Your task to perform on an android device: remove spam from my inbox in the gmail app Image 0: 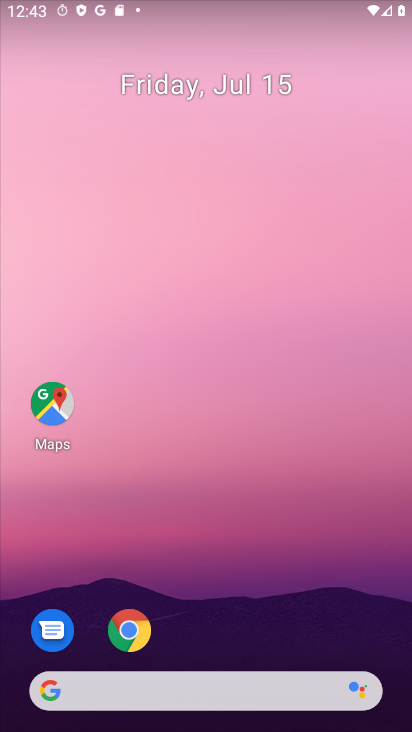
Step 0: drag from (193, 639) to (260, 19)
Your task to perform on an android device: remove spam from my inbox in the gmail app Image 1: 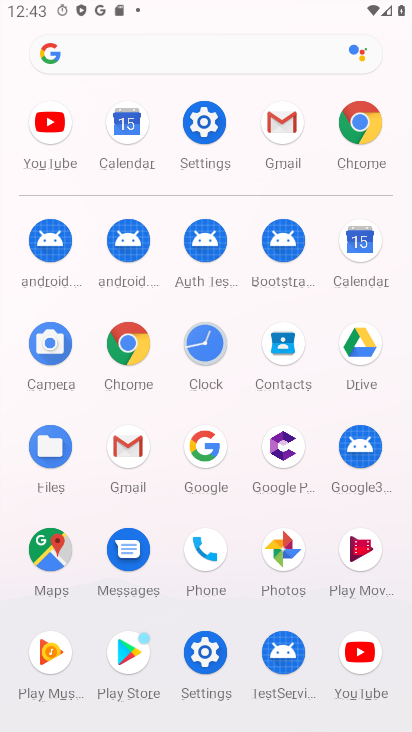
Step 1: click (117, 461)
Your task to perform on an android device: remove spam from my inbox in the gmail app Image 2: 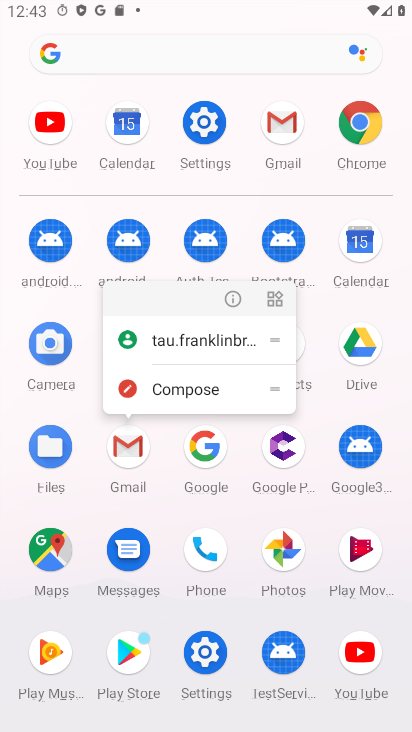
Step 2: click (236, 295)
Your task to perform on an android device: remove spam from my inbox in the gmail app Image 3: 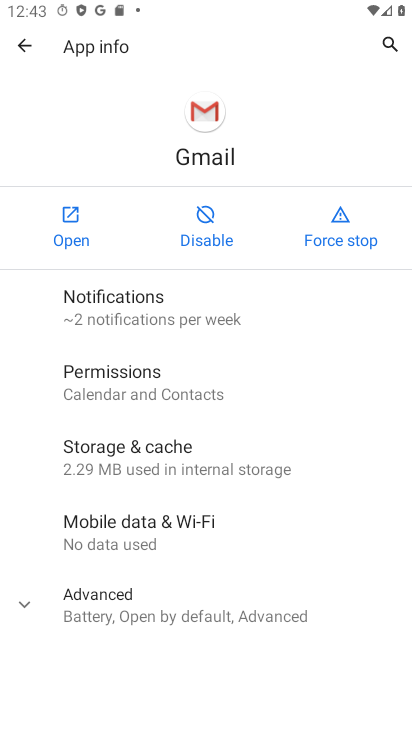
Step 3: click (84, 225)
Your task to perform on an android device: remove spam from my inbox in the gmail app Image 4: 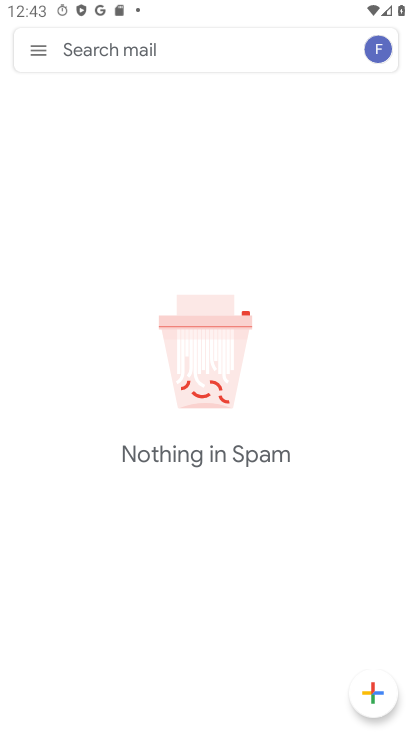
Step 4: drag from (211, 566) to (239, 344)
Your task to perform on an android device: remove spam from my inbox in the gmail app Image 5: 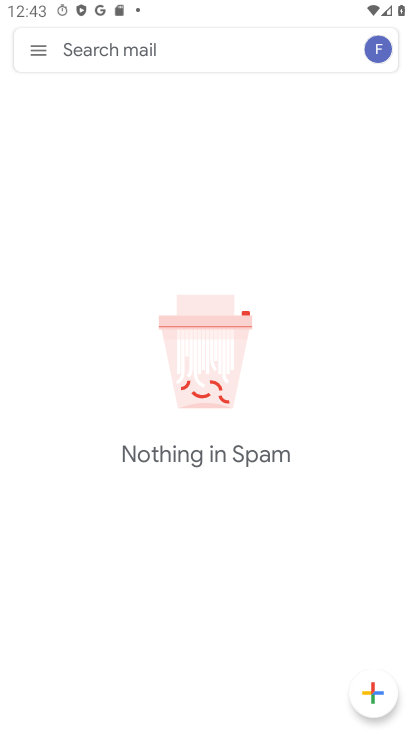
Step 5: click (41, 44)
Your task to perform on an android device: remove spam from my inbox in the gmail app Image 6: 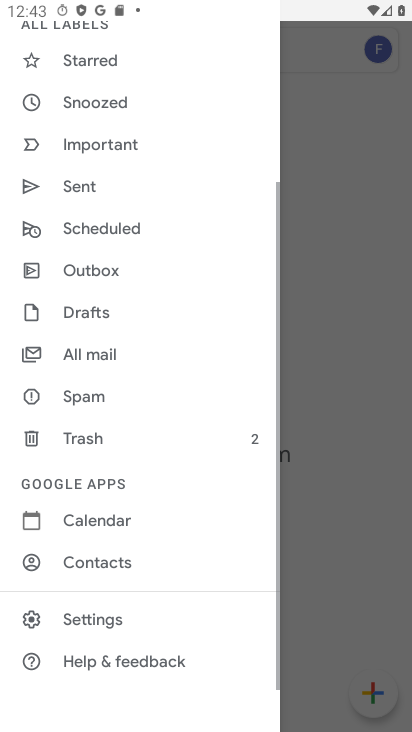
Step 6: drag from (112, 572) to (163, 234)
Your task to perform on an android device: remove spam from my inbox in the gmail app Image 7: 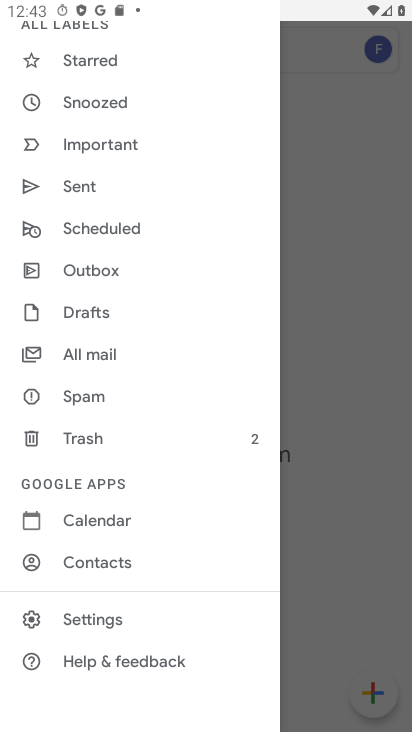
Step 7: drag from (146, 260) to (176, 723)
Your task to perform on an android device: remove spam from my inbox in the gmail app Image 8: 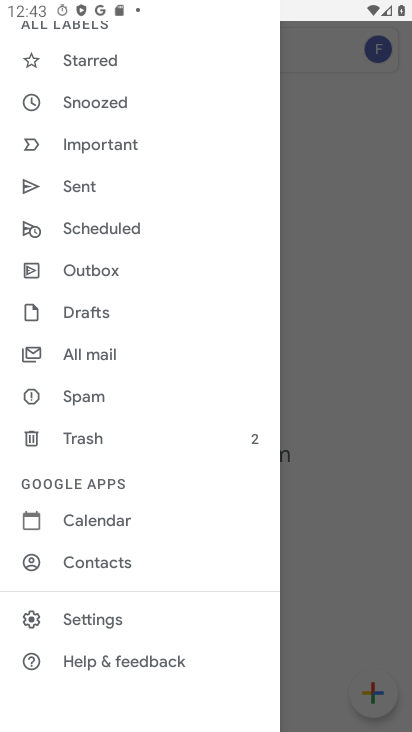
Step 8: drag from (124, 126) to (126, 516)
Your task to perform on an android device: remove spam from my inbox in the gmail app Image 9: 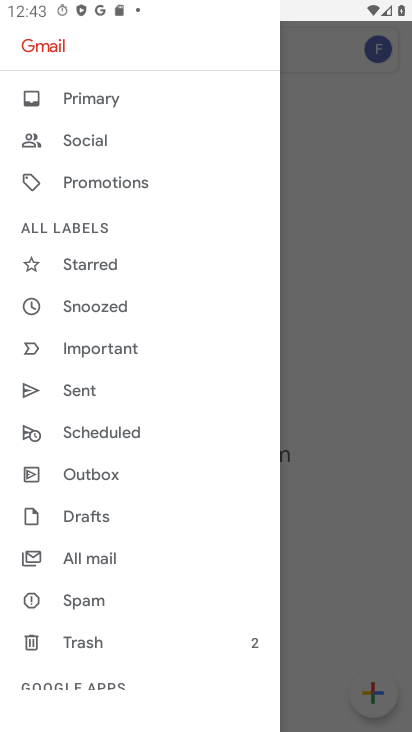
Step 9: click (112, 596)
Your task to perform on an android device: remove spam from my inbox in the gmail app Image 10: 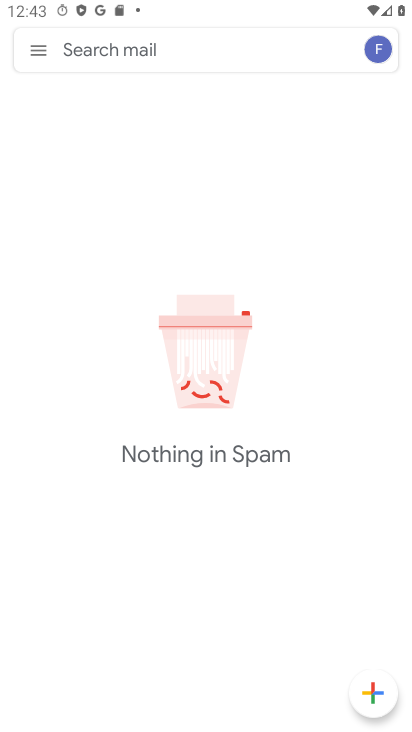
Step 10: task complete